Your task to perform on an android device: Search for pizza restaurants on Maps Image 0: 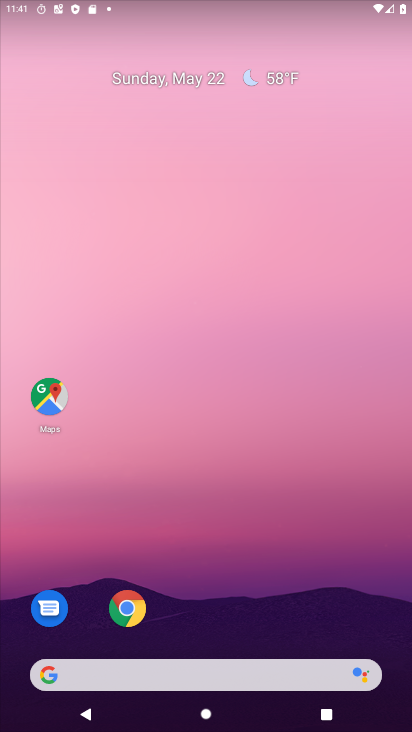
Step 0: click (55, 399)
Your task to perform on an android device: Search for pizza restaurants on Maps Image 1: 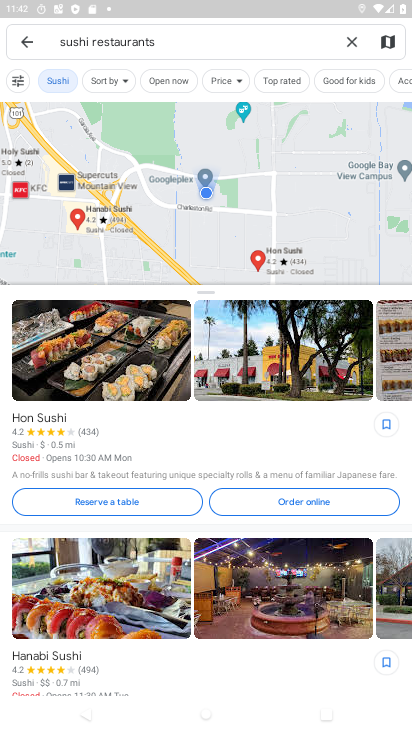
Step 1: click (351, 47)
Your task to perform on an android device: Search for pizza restaurants on Maps Image 2: 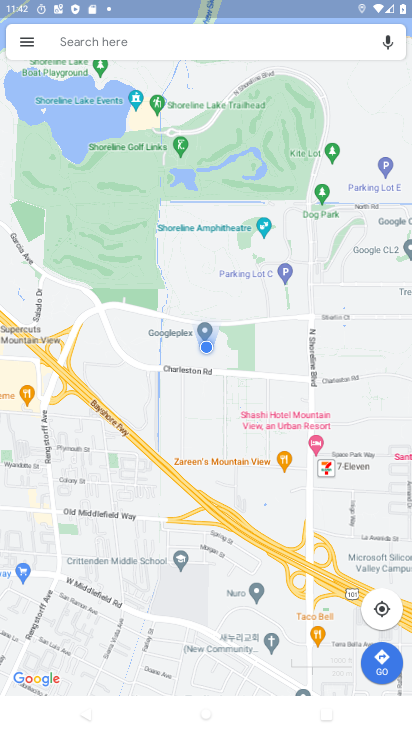
Step 2: click (207, 38)
Your task to perform on an android device: Search for pizza restaurants on Maps Image 3: 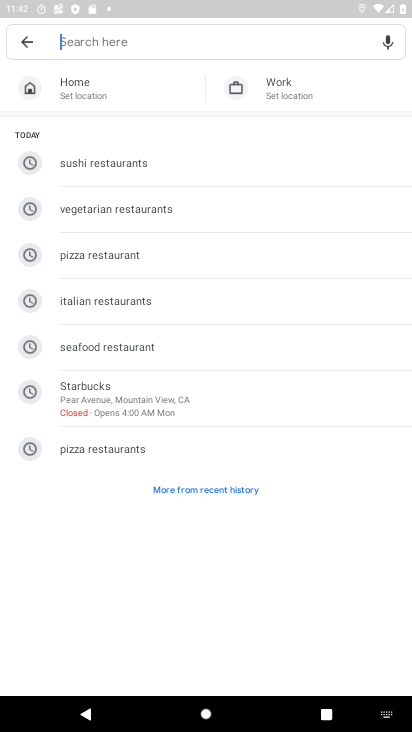
Step 3: click (110, 252)
Your task to perform on an android device: Search for pizza restaurants on Maps Image 4: 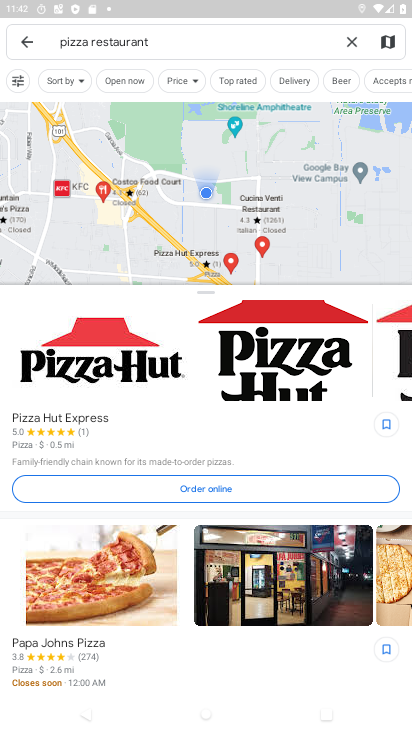
Step 4: task complete